Your task to perform on an android device: turn on translation in the chrome app Image 0: 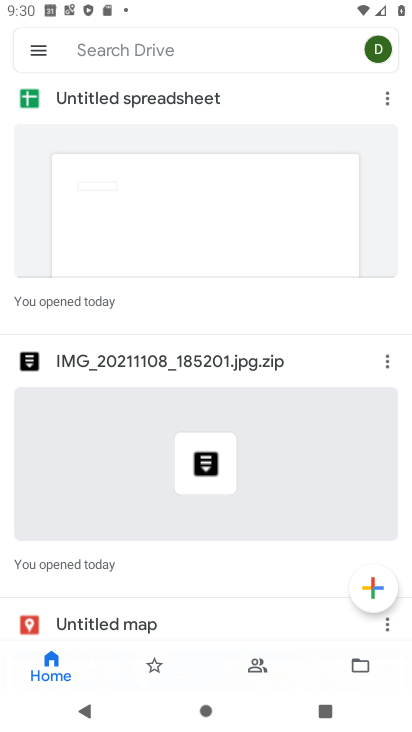
Step 0: press home button
Your task to perform on an android device: turn on translation in the chrome app Image 1: 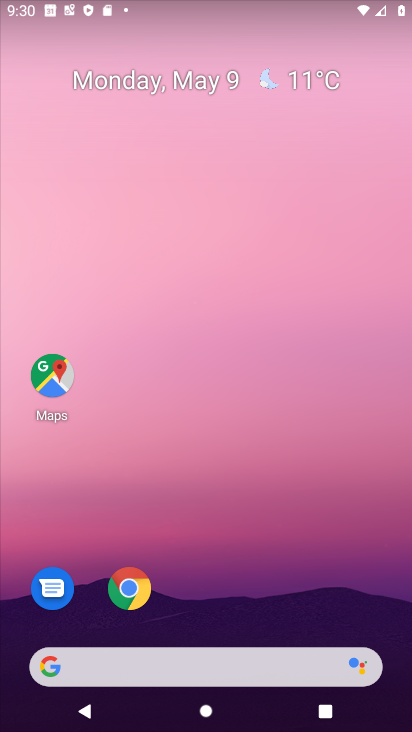
Step 1: drag from (163, 663) to (284, 146)
Your task to perform on an android device: turn on translation in the chrome app Image 2: 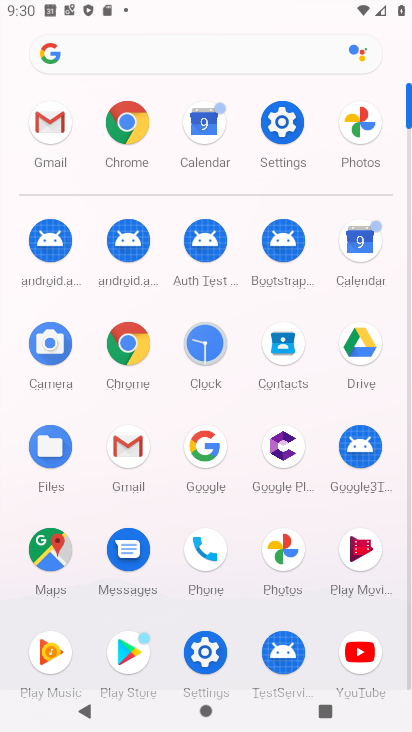
Step 2: click (129, 131)
Your task to perform on an android device: turn on translation in the chrome app Image 3: 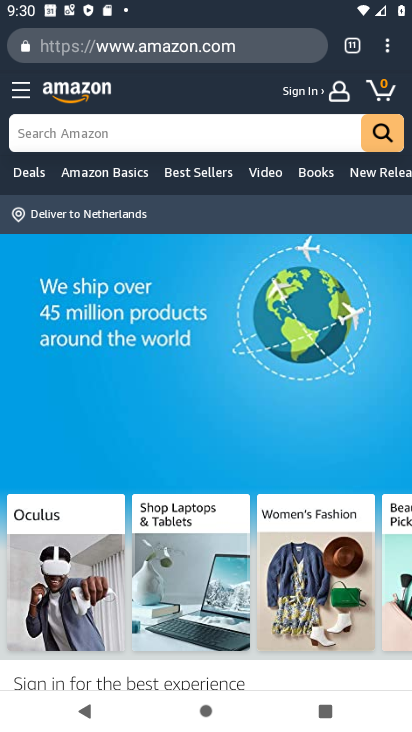
Step 3: drag from (389, 51) to (251, 550)
Your task to perform on an android device: turn on translation in the chrome app Image 4: 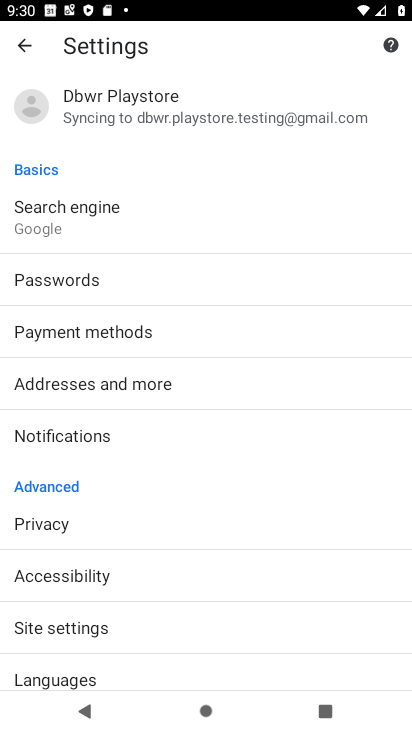
Step 4: drag from (113, 650) to (229, 288)
Your task to perform on an android device: turn on translation in the chrome app Image 5: 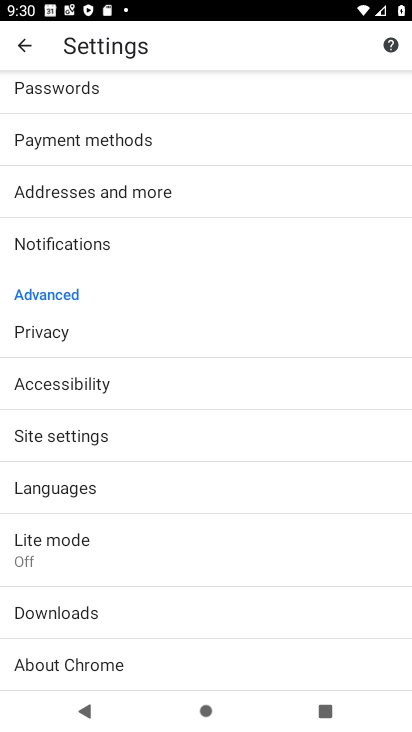
Step 5: click (129, 489)
Your task to perform on an android device: turn on translation in the chrome app Image 6: 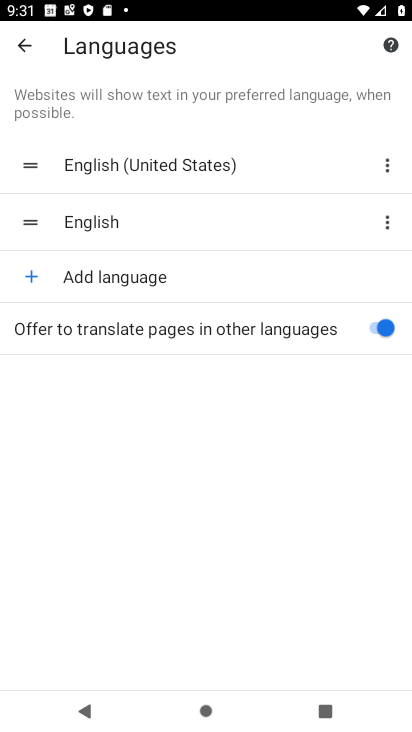
Step 6: task complete